Your task to perform on an android device: read, delete, or share a saved page in the chrome app Image 0: 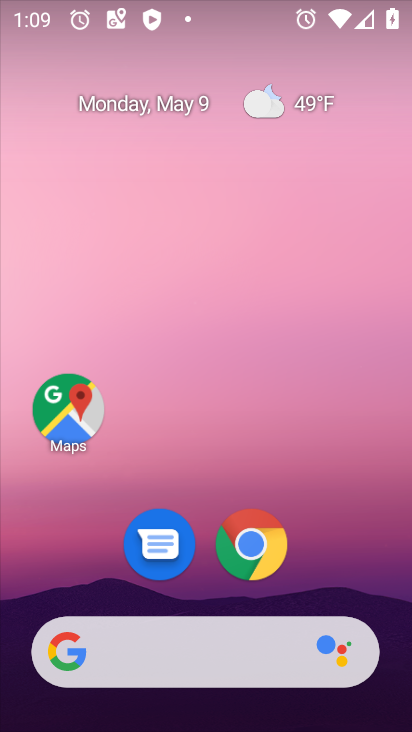
Step 0: click (251, 561)
Your task to perform on an android device: read, delete, or share a saved page in the chrome app Image 1: 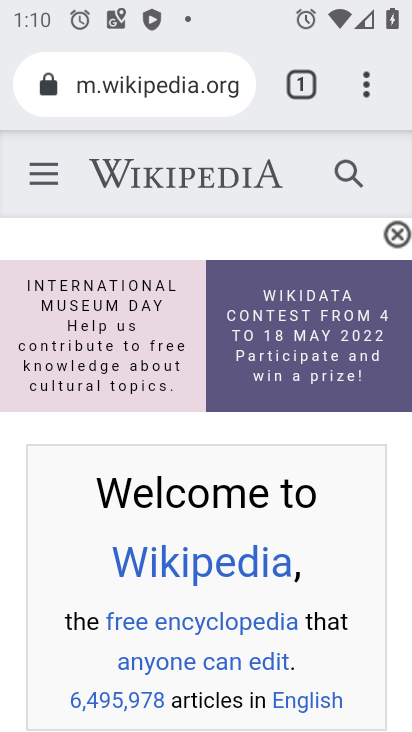
Step 1: click (368, 88)
Your task to perform on an android device: read, delete, or share a saved page in the chrome app Image 2: 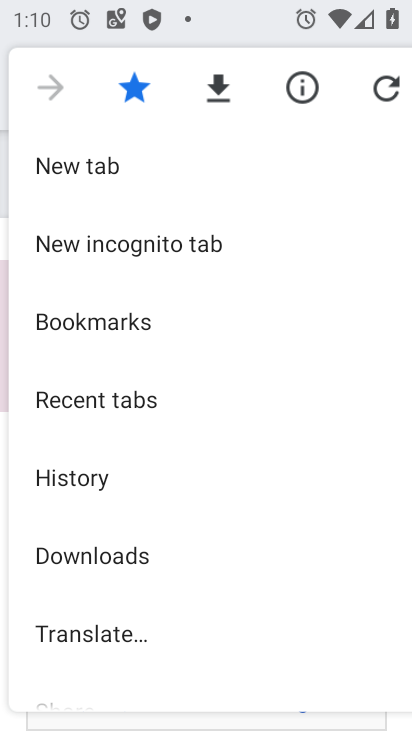
Step 2: click (95, 549)
Your task to perform on an android device: read, delete, or share a saved page in the chrome app Image 3: 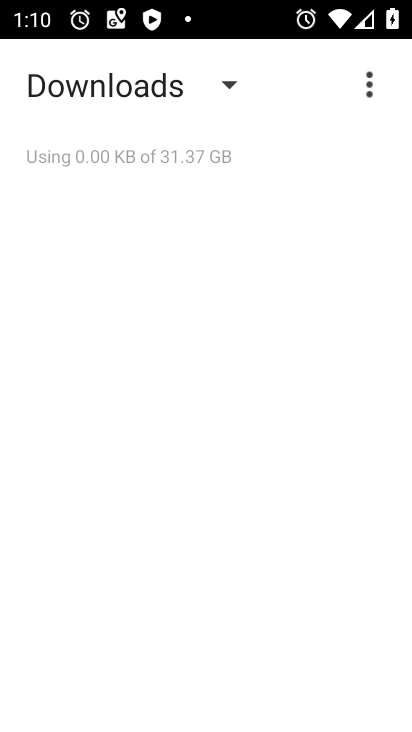
Step 3: task complete